Your task to perform on an android device: What is the news today? Image 0: 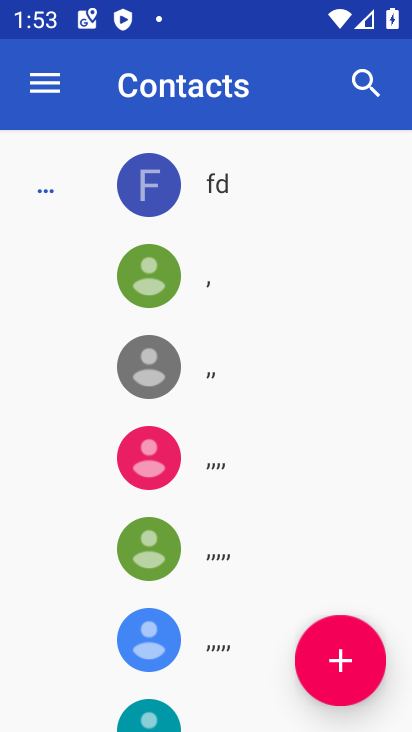
Step 0: press home button
Your task to perform on an android device: What is the news today? Image 1: 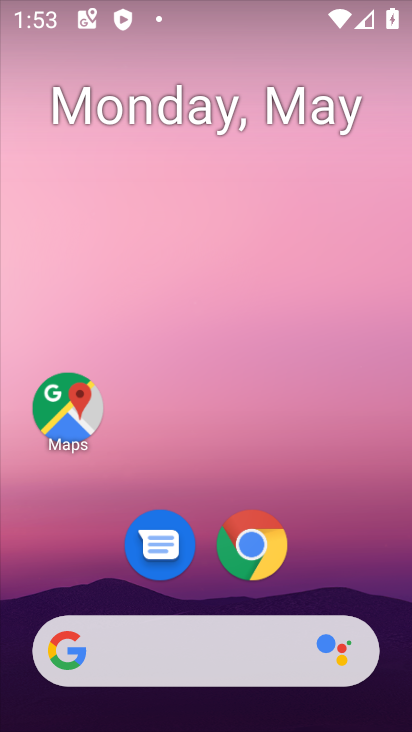
Step 1: click (211, 659)
Your task to perform on an android device: What is the news today? Image 2: 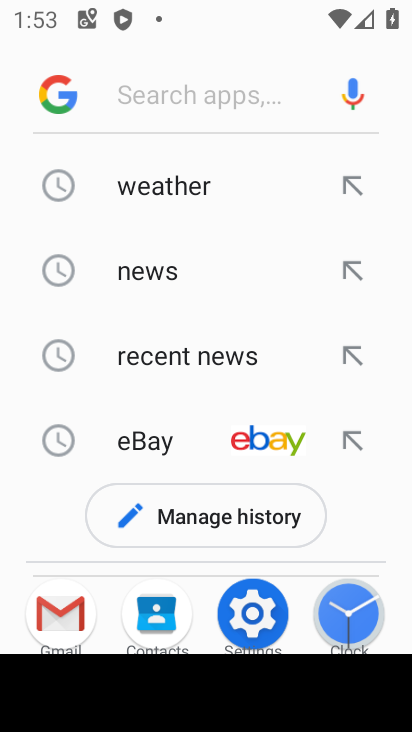
Step 2: type "news today"
Your task to perform on an android device: What is the news today? Image 3: 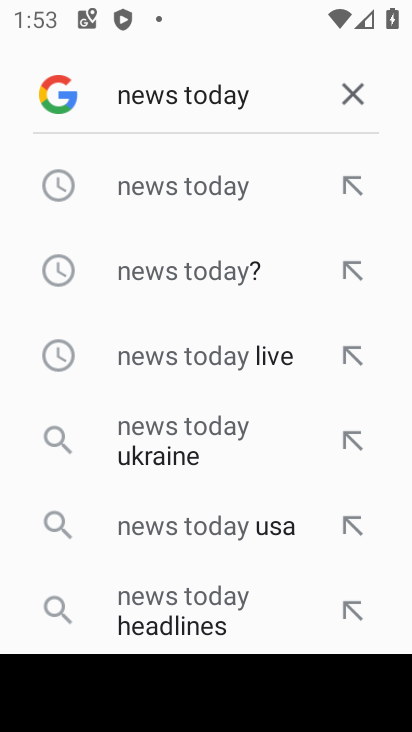
Step 3: click (211, 192)
Your task to perform on an android device: What is the news today? Image 4: 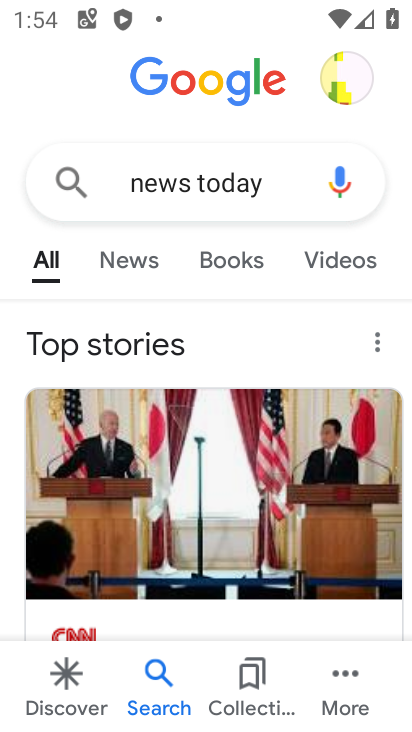
Step 4: task complete